Your task to perform on an android device: open app "Grab" Image 0: 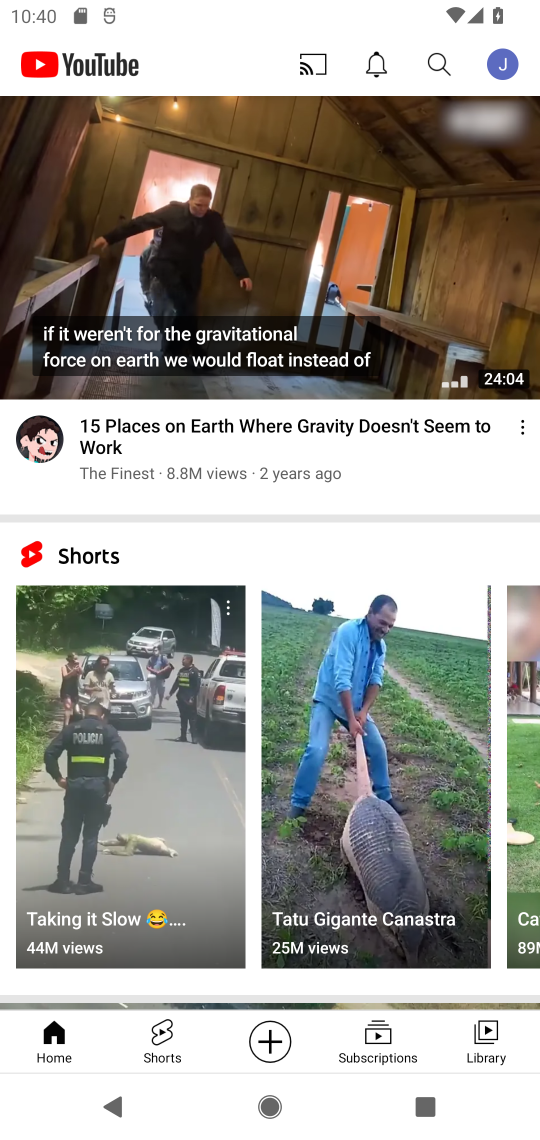
Step 0: press home button
Your task to perform on an android device: open app "Grab" Image 1: 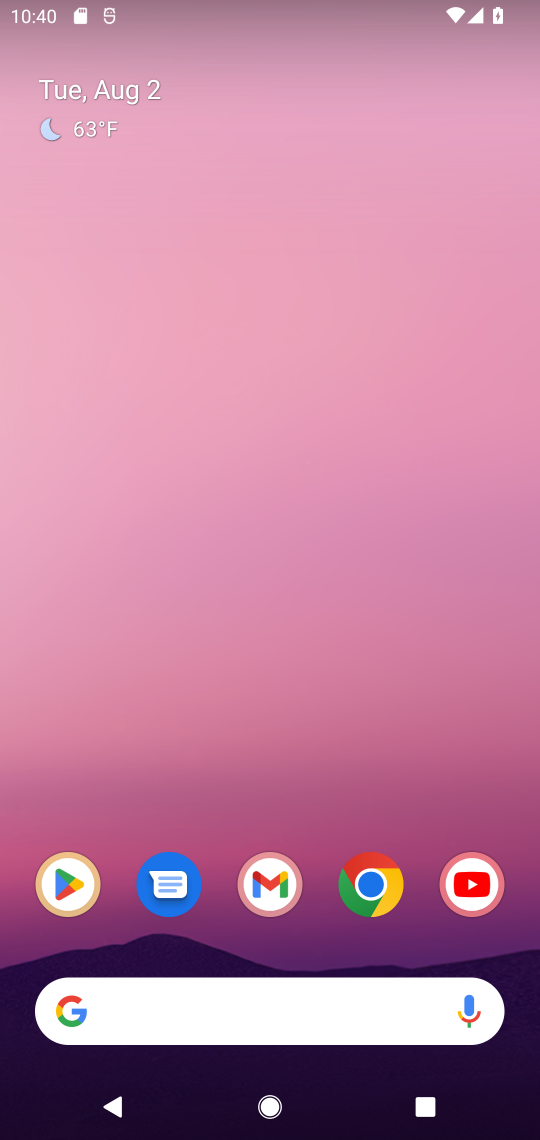
Step 1: click (83, 880)
Your task to perform on an android device: open app "Grab" Image 2: 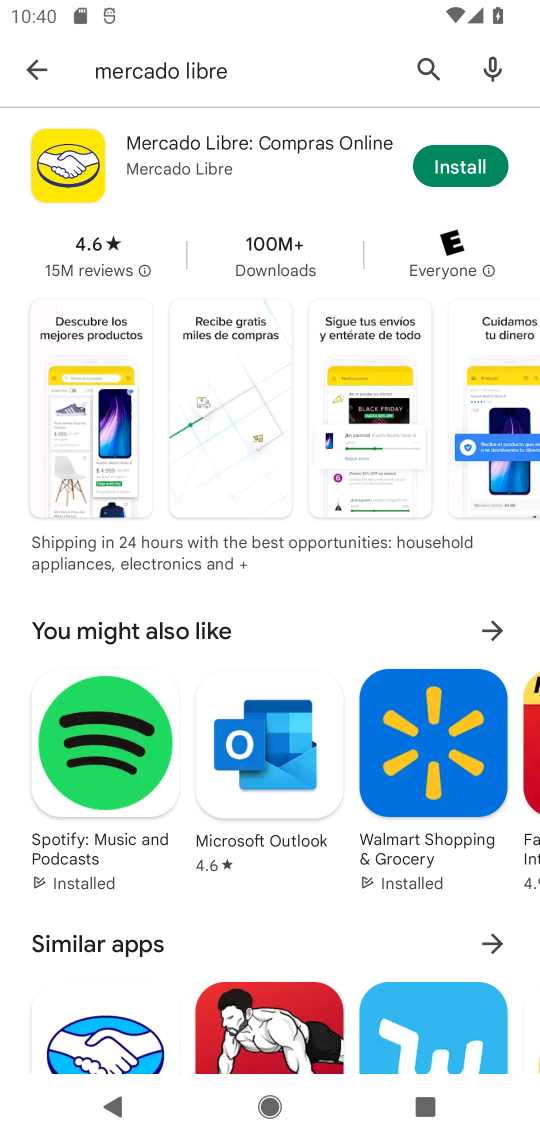
Step 2: click (282, 77)
Your task to perform on an android device: open app "Grab" Image 3: 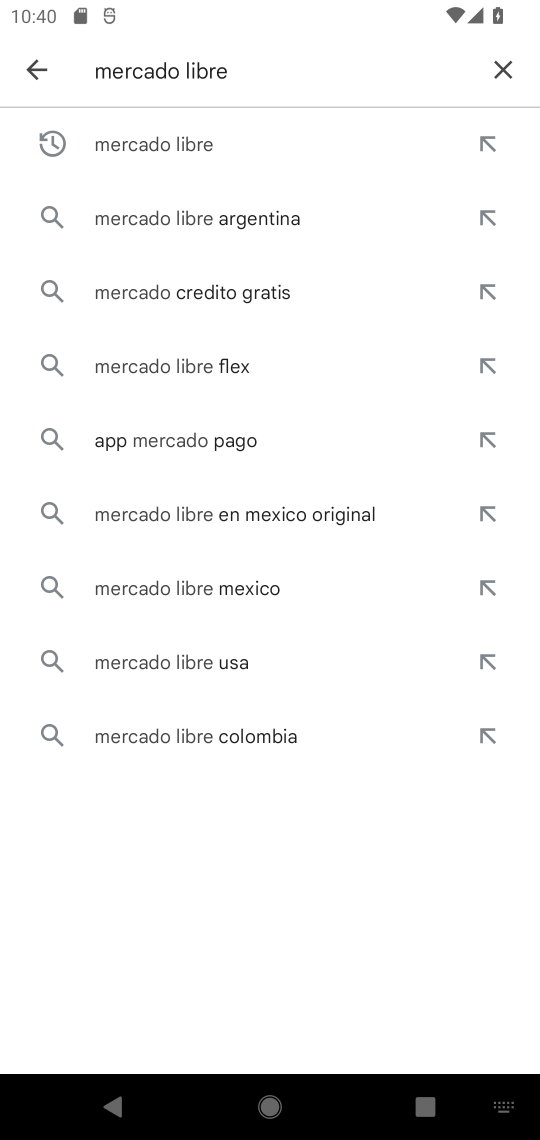
Step 3: click (525, 53)
Your task to perform on an android device: open app "Grab" Image 4: 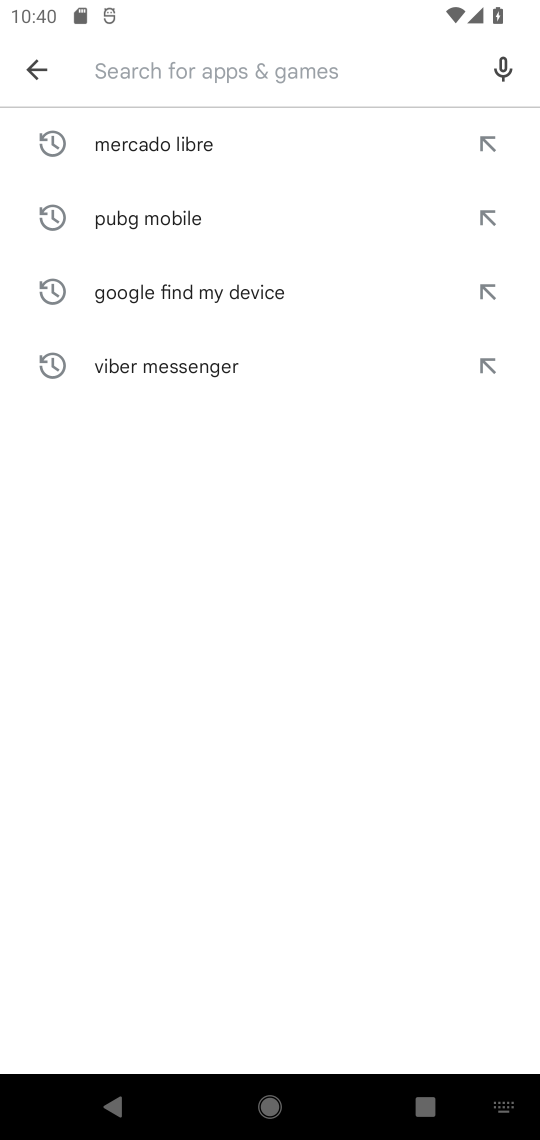
Step 4: type "grab"
Your task to perform on an android device: open app "Grab" Image 5: 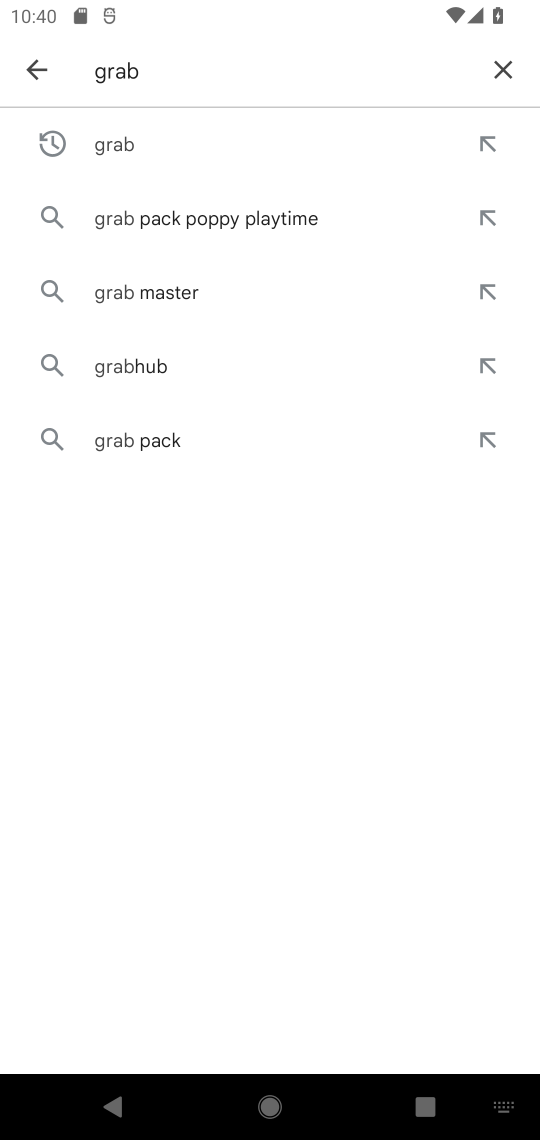
Step 5: click (168, 157)
Your task to perform on an android device: open app "Grab" Image 6: 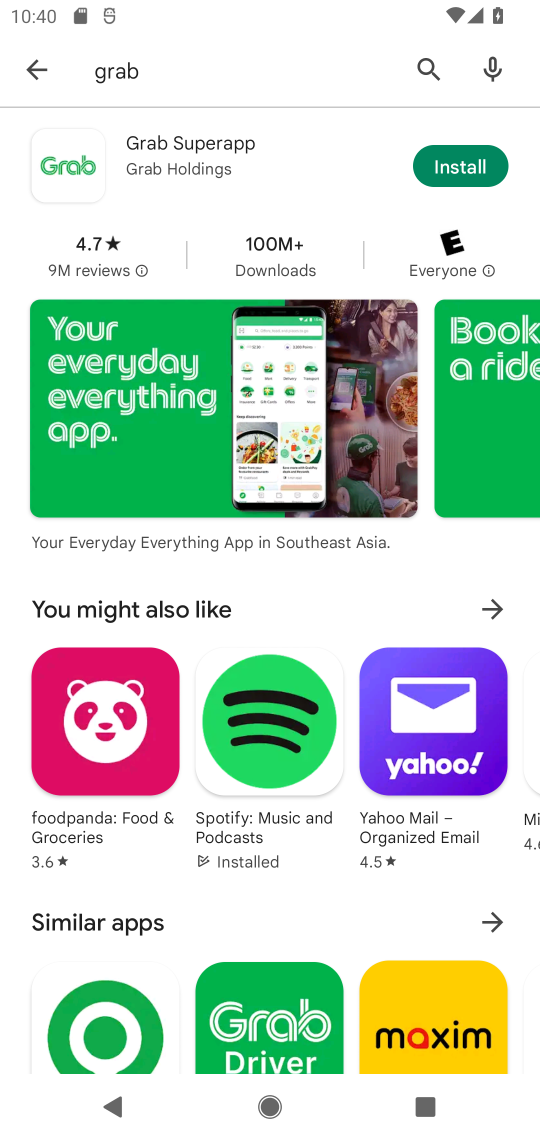
Step 6: task complete